Your task to perform on an android device: Show me recent news Image 0: 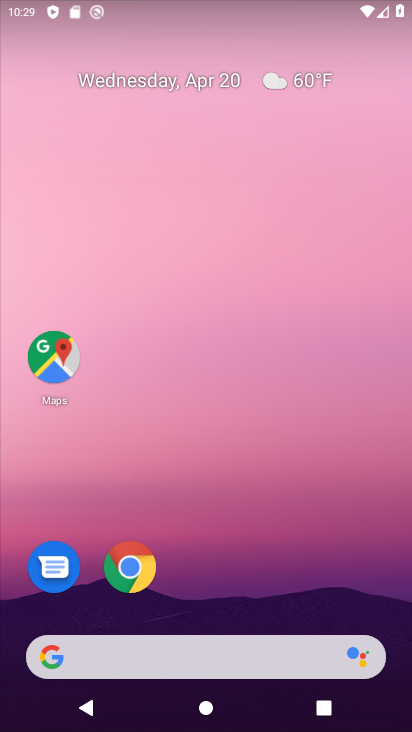
Step 0: drag from (64, 218) to (408, 87)
Your task to perform on an android device: Show me recent news Image 1: 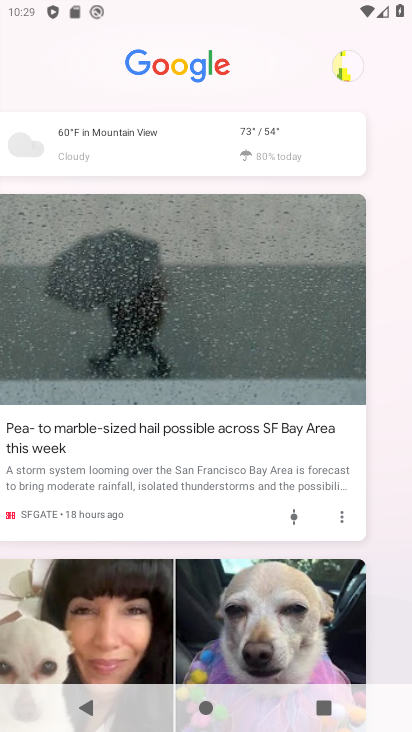
Step 1: task complete